Your task to perform on an android device: Search for Mexican restaurants on Maps Image 0: 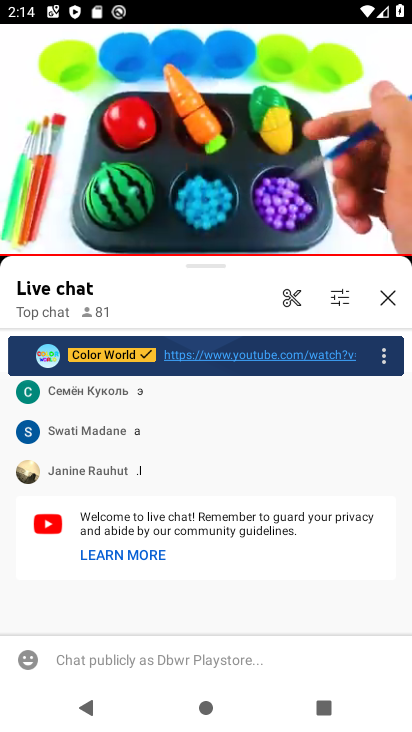
Step 0: press home button
Your task to perform on an android device: Search for Mexican restaurants on Maps Image 1: 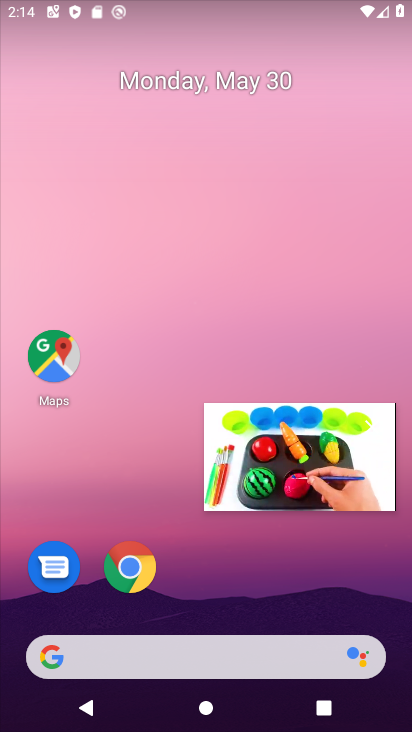
Step 1: click (48, 343)
Your task to perform on an android device: Search for Mexican restaurants on Maps Image 2: 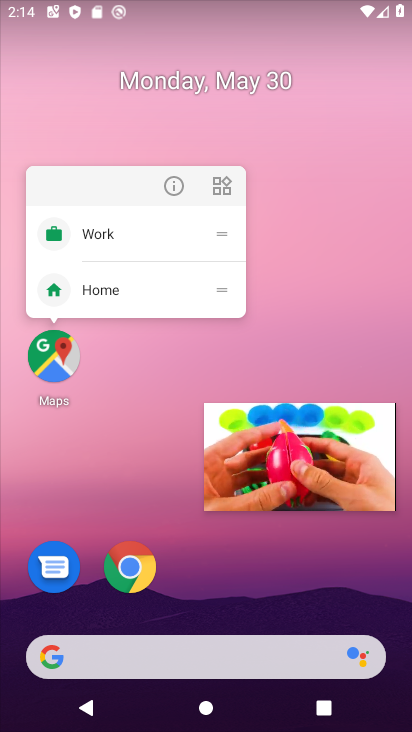
Step 2: click (54, 350)
Your task to perform on an android device: Search for Mexican restaurants on Maps Image 3: 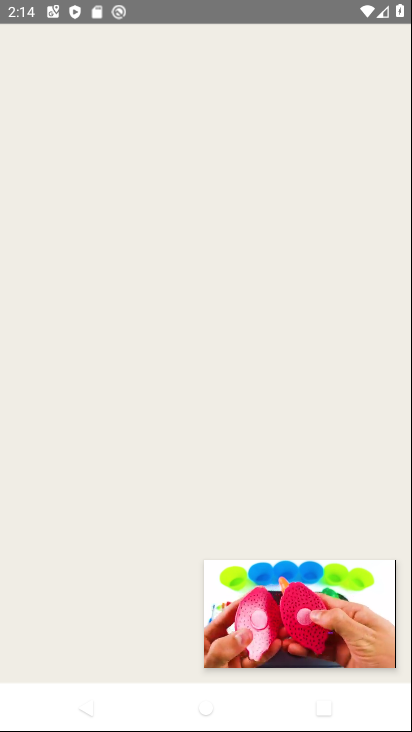
Step 3: click (54, 350)
Your task to perform on an android device: Search for Mexican restaurants on Maps Image 4: 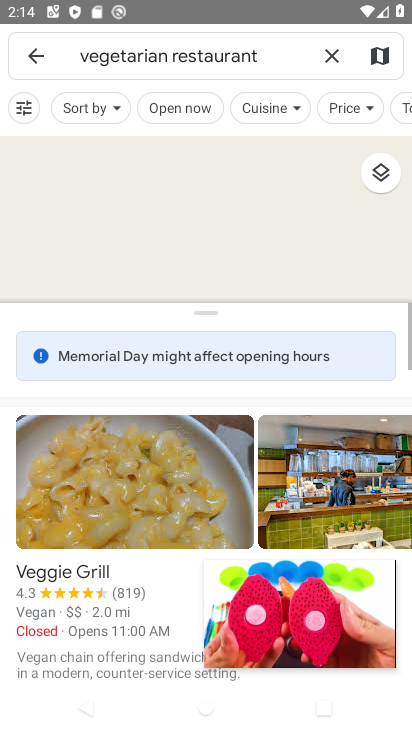
Step 4: click (325, 605)
Your task to perform on an android device: Search for Mexican restaurants on Maps Image 5: 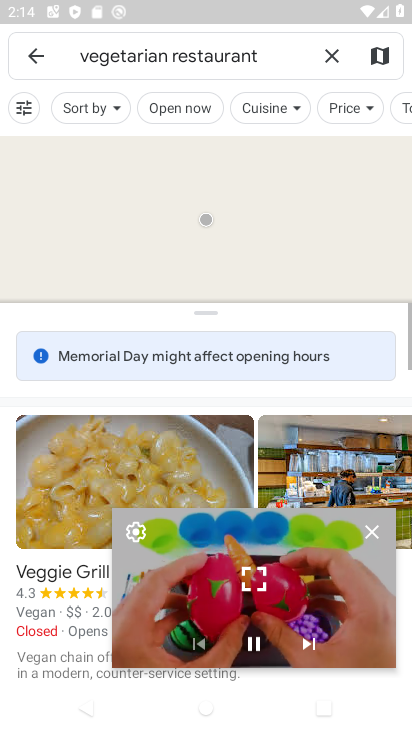
Step 5: click (368, 523)
Your task to perform on an android device: Search for Mexican restaurants on Maps Image 6: 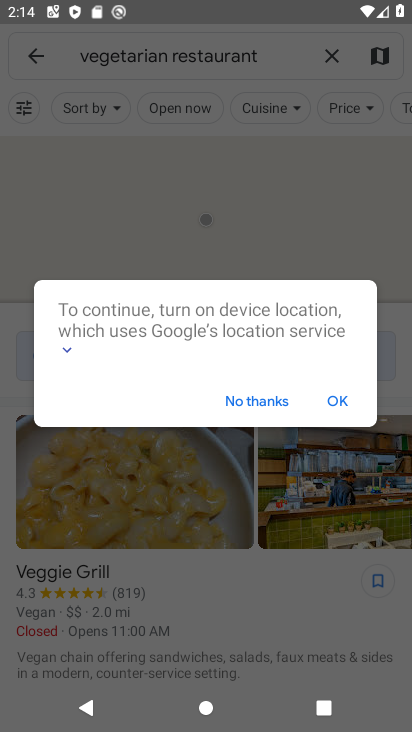
Step 6: click (337, 400)
Your task to perform on an android device: Search for Mexican restaurants on Maps Image 7: 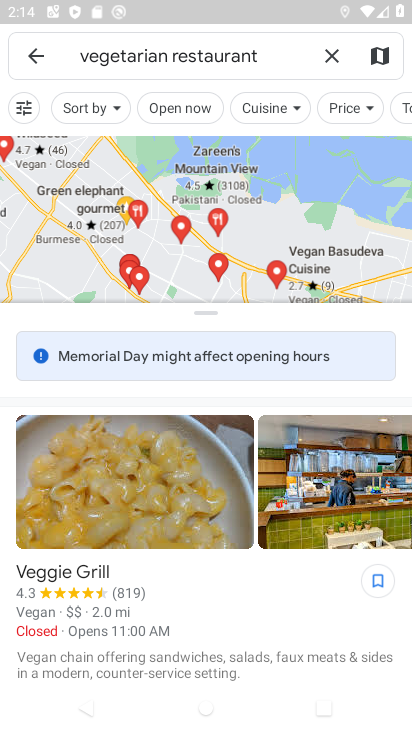
Step 7: click (137, 58)
Your task to perform on an android device: Search for Mexican restaurants on Maps Image 8: 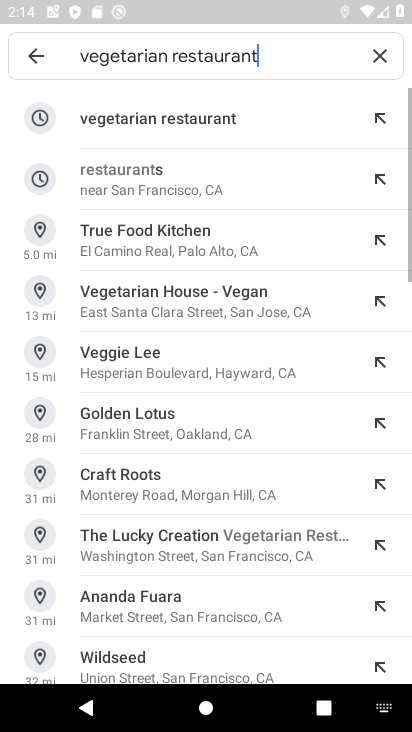
Step 8: click (117, 52)
Your task to perform on an android device: Search for Mexican restaurants on Maps Image 9: 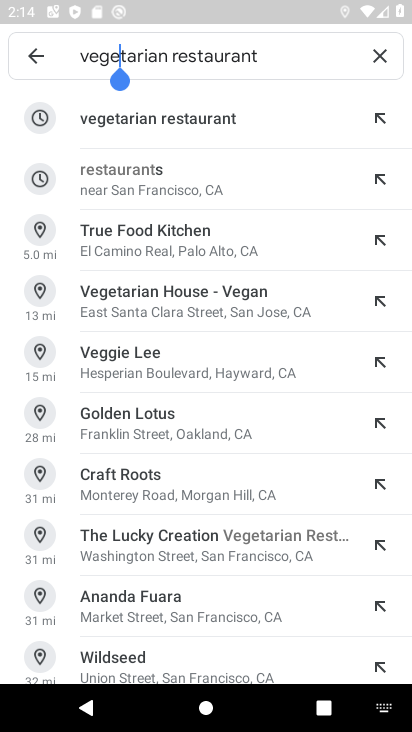
Step 9: click (117, 51)
Your task to perform on an android device: Search for Mexican restaurants on Maps Image 10: 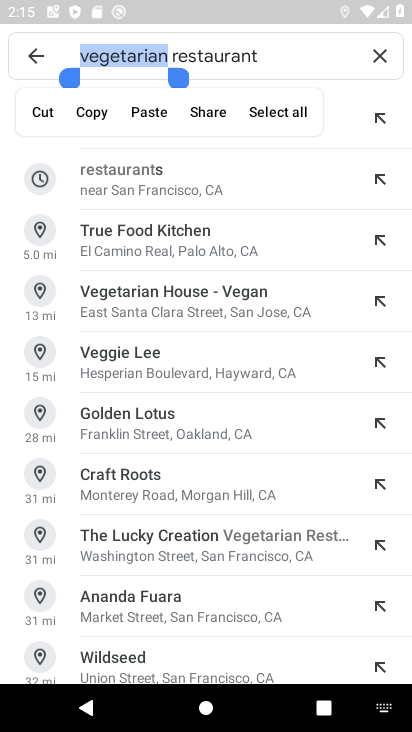
Step 10: type "Mexican"
Your task to perform on an android device: Search for Mexican restaurants on Maps Image 11: 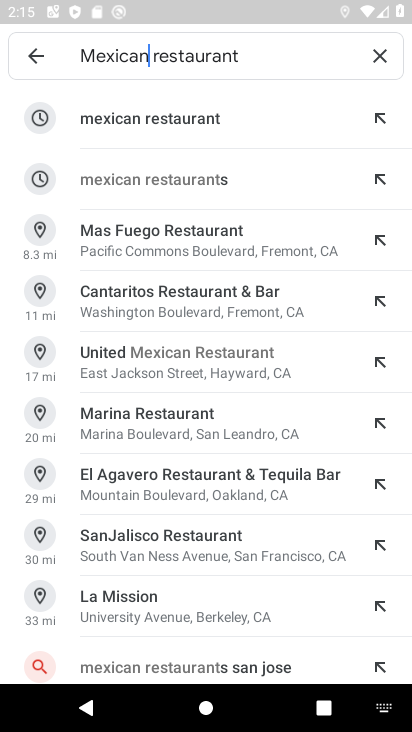
Step 11: click (192, 127)
Your task to perform on an android device: Search for Mexican restaurants on Maps Image 12: 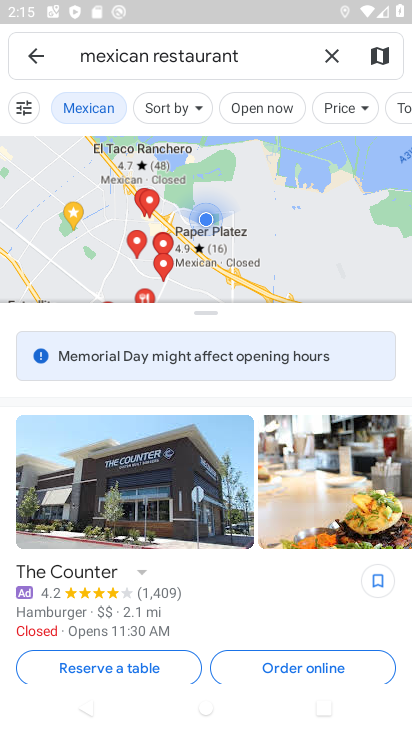
Step 12: task complete